Your task to perform on an android device: Is it going to rain this weekend? Image 0: 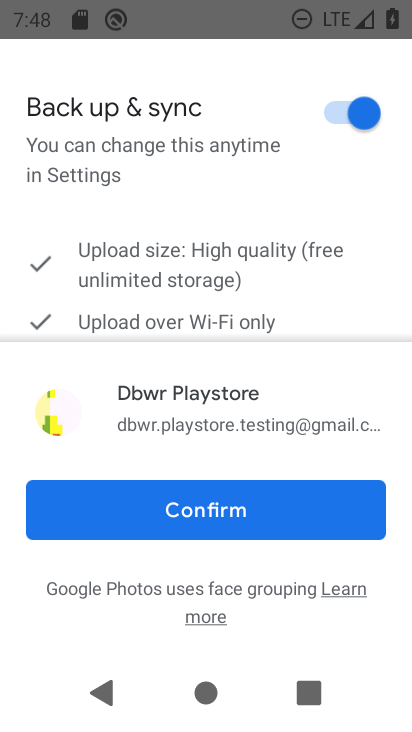
Step 0: press home button
Your task to perform on an android device: Is it going to rain this weekend? Image 1: 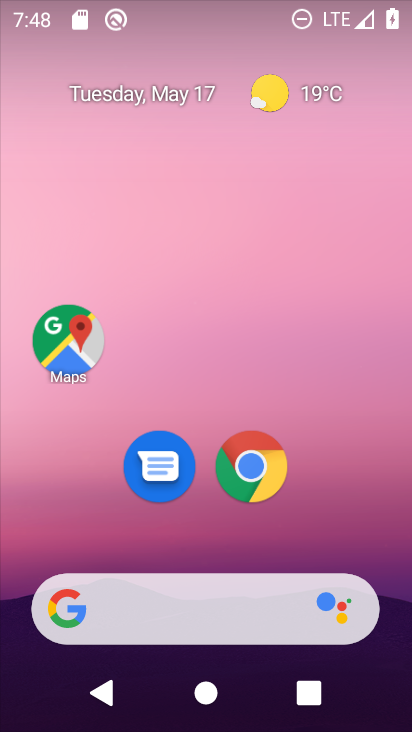
Step 1: click (319, 99)
Your task to perform on an android device: Is it going to rain this weekend? Image 2: 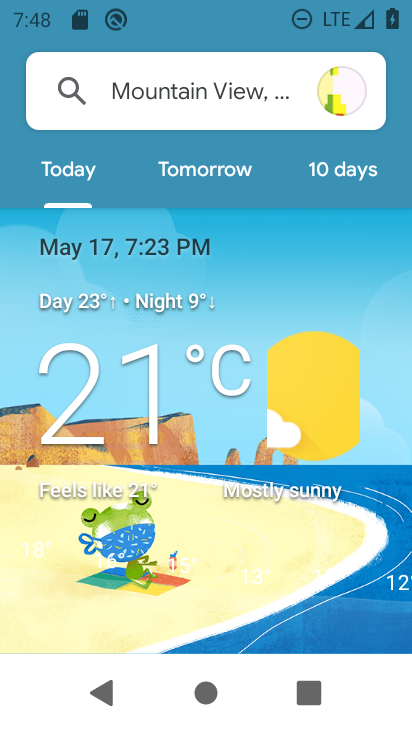
Step 2: click (347, 172)
Your task to perform on an android device: Is it going to rain this weekend? Image 3: 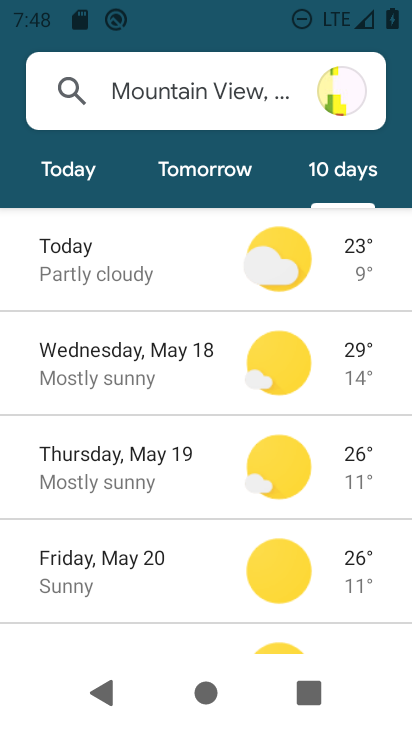
Step 3: task complete